Your task to perform on an android device: add a contact Image 0: 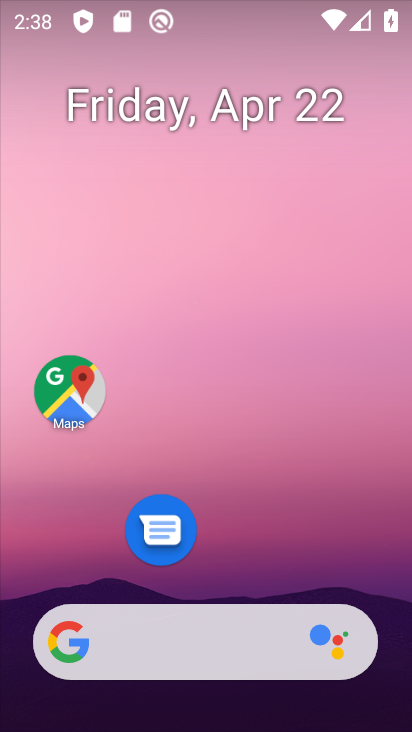
Step 0: drag from (219, 320) to (202, 41)
Your task to perform on an android device: add a contact Image 1: 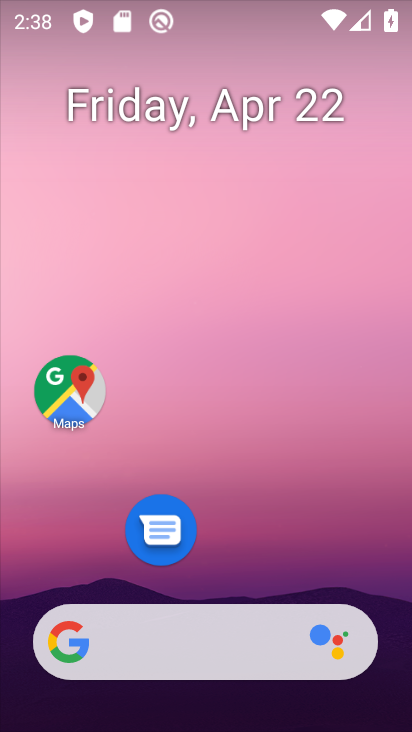
Step 1: drag from (241, 462) to (199, 25)
Your task to perform on an android device: add a contact Image 2: 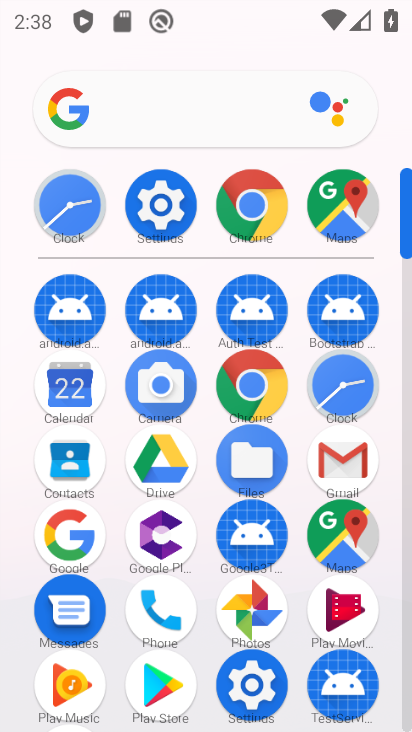
Step 2: click (66, 457)
Your task to perform on an android device: add a contact Image 3: 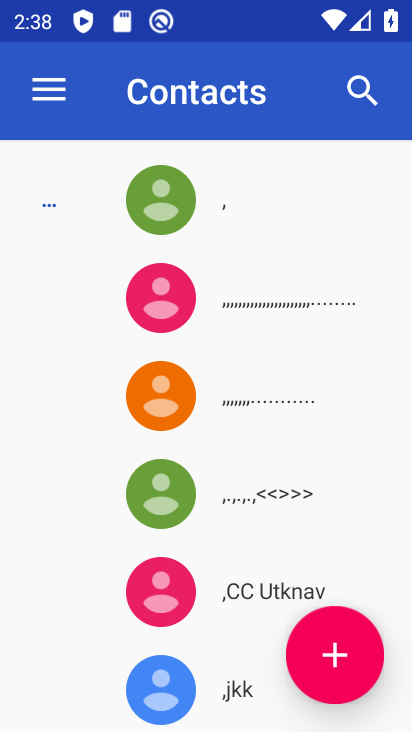
Step 3: click (344, 667)
Your task to perform on an android device: add a contact Image 4: 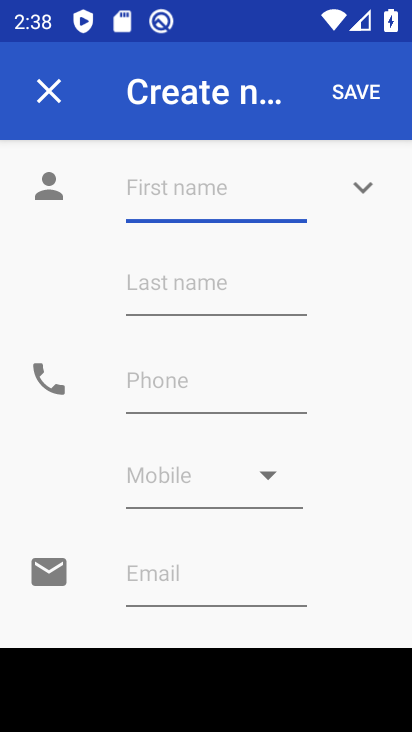
Step 4: type "we"
Your task to perform on an android device: add a contact Image 5: 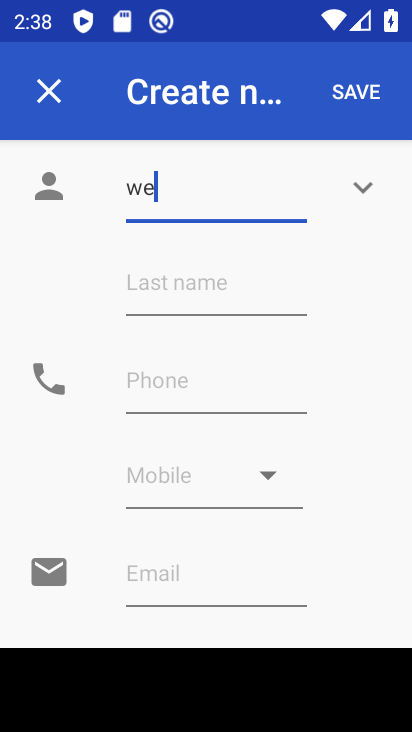
Step 5: type ""
Your task to perform on an android device: add a contact Image 6: 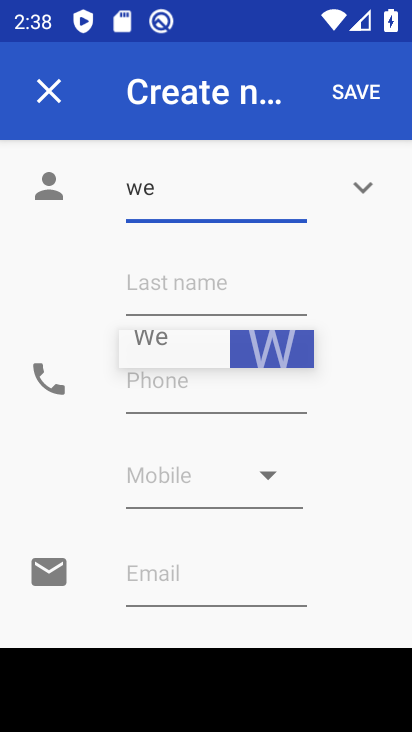
Step 6: click (159, 381)
Your task to perform on an android device: add a contact Image 7: 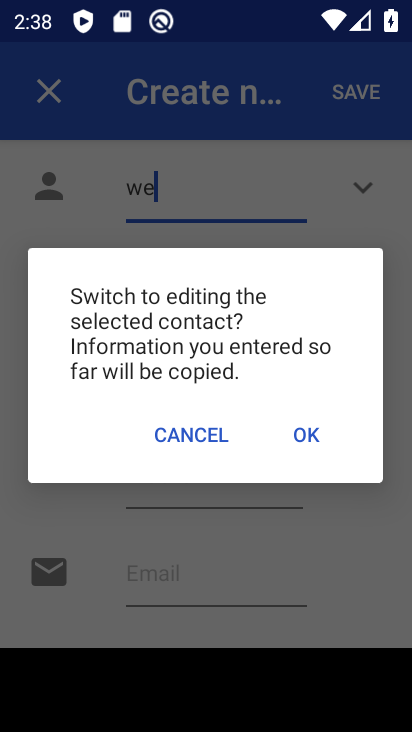
Step 7: click (300, 432)
Your task to perform on an android device: add a contact Image 8: 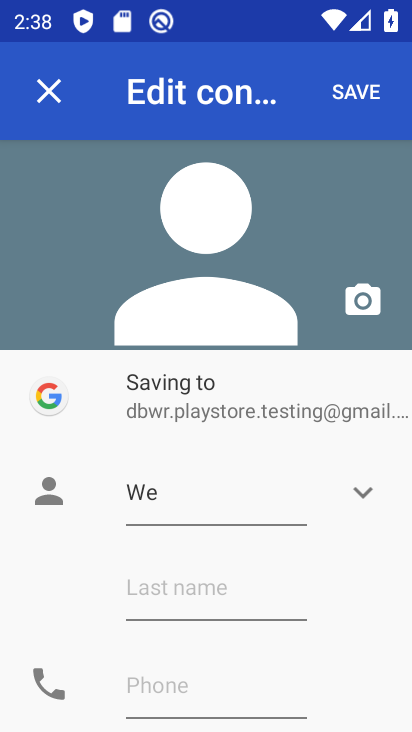
Step 8: click (175, 676)
Your task to perform on an android device: add a contact Image 9: 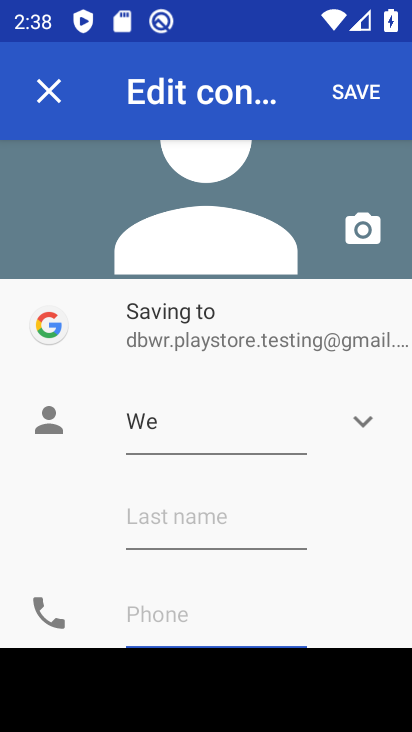
Step 9: type "23"
Your task to perform on an android device: add a contact Image 10: 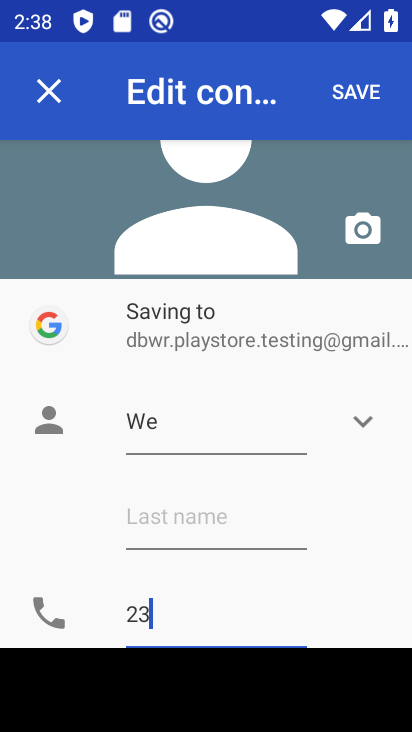
Step 10: type ""
Your task to perform on an android device: add a contact Image 11: 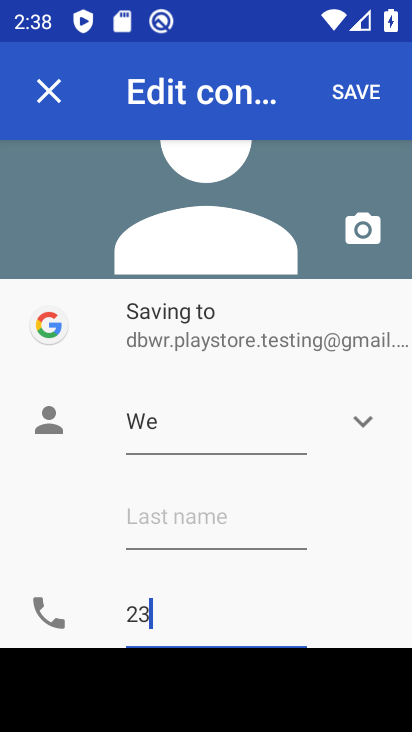
Step 11: click (356, 93)
Your task to perform on an android device: add a contact Image 12: 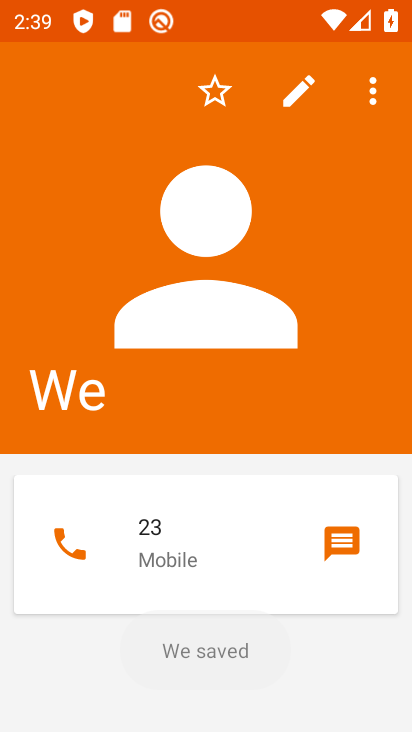
Step 12: task complete